Your task to perform on an android device: Open calendar and show me the first week of next month Image 0: 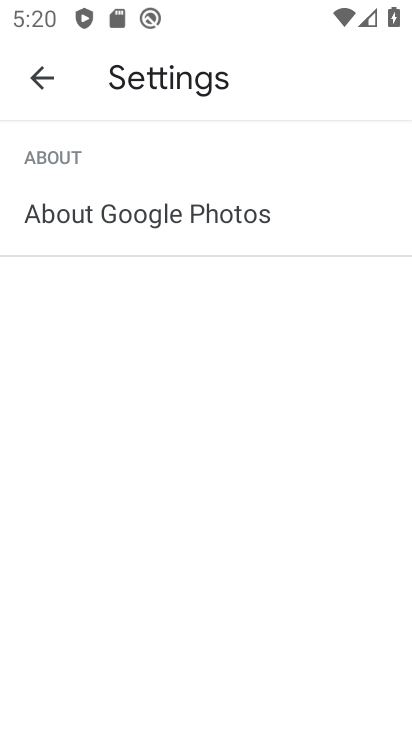
Step 0: press home button
Your task to perform on an android device: Open calendar and show me the first week of next month Image 1: 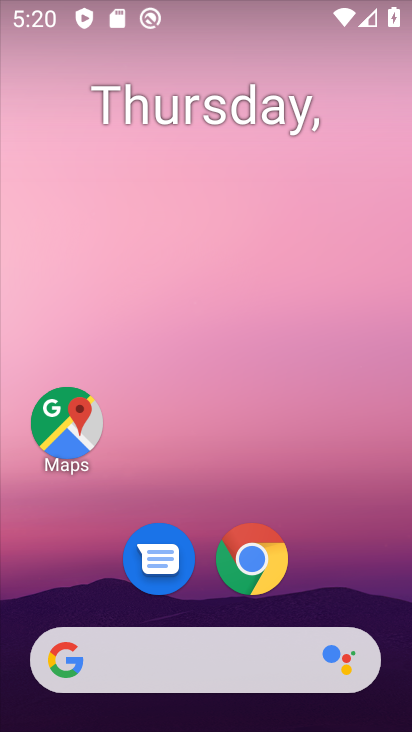
Step 1: drag from (224, 502) to (270, 33)
Your task to perform on an android device: Open calendar and show me the first week of next month Image 2: 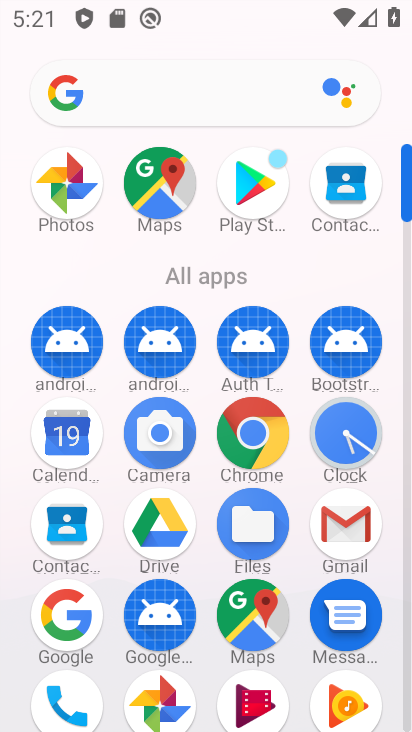
Step 2: click (63, 459)
Your task to perform on an android device: Open calendar and show me the first week of next month Image 3: 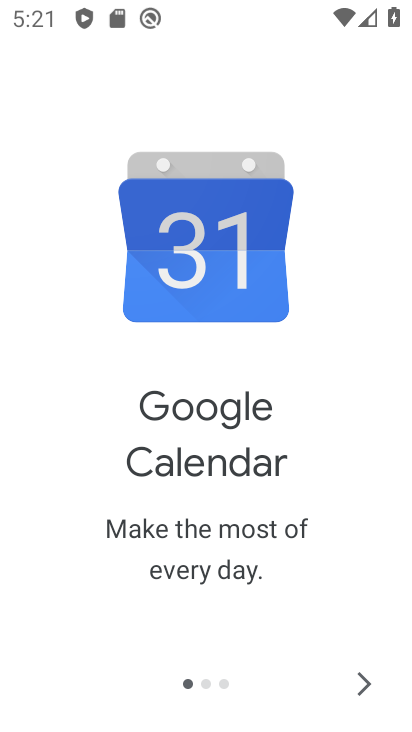
Step 3: click (363, 685)
Your task to perform on an android device: Open calendar and show me the first week of next month Image 4: 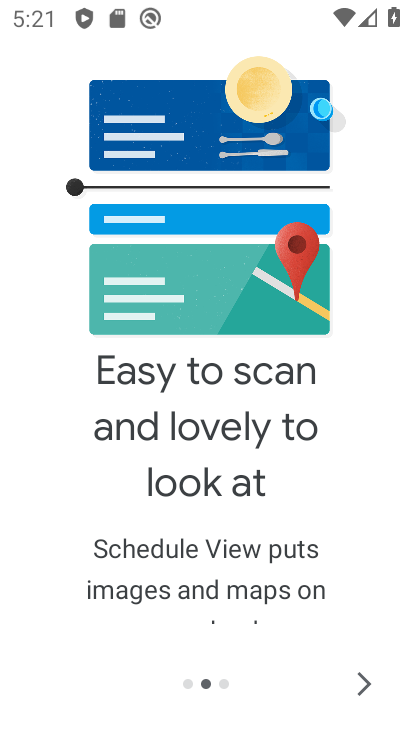
Step 4: click (358, 692)
Your task to perform on an android device: Open calendar and show me the first week of next month Image 5: 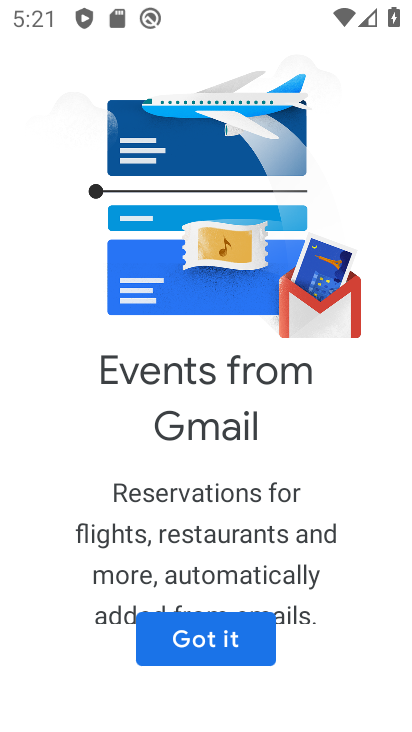
Step 5: click (243, 644)
Your task to perform on an android device: Open calendar and show me the first week of next month Image 6: 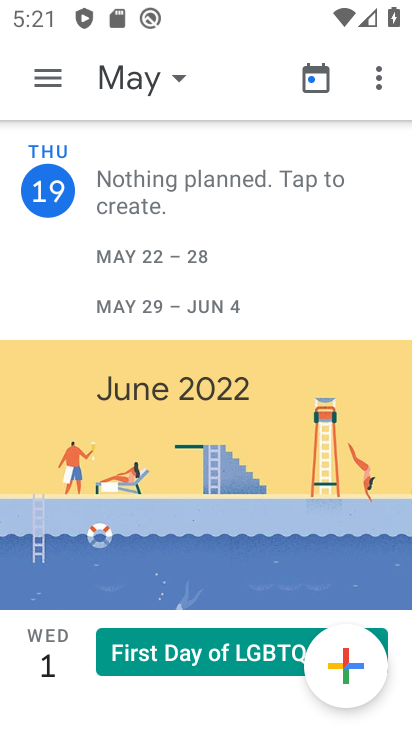
Step 6: click (52, 80)
Your task to perform on an android device: Open calendar and show me the first week of next month Image 7: 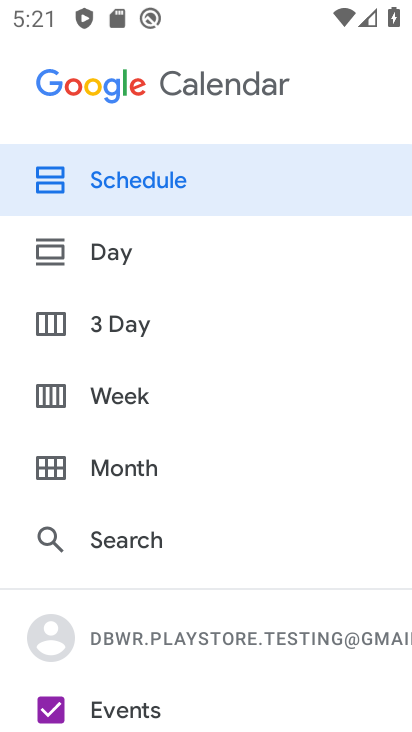
Step 7: click (128, 412)
Your task to perform on an android device: Open calendar and show me the first week of next month Image 8: 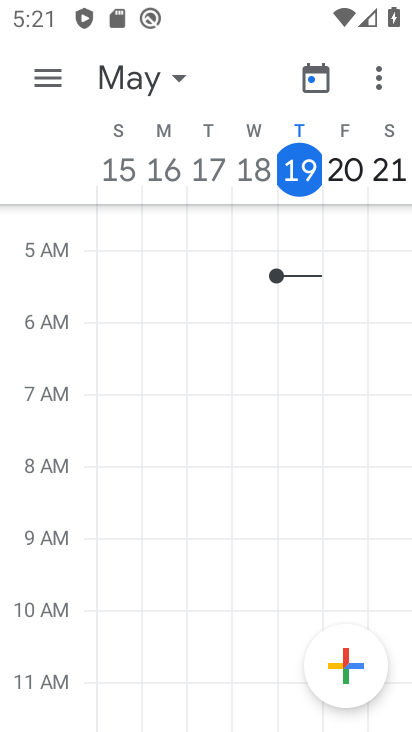
Step 8: task complete